Your task to perform on an android device: find snoozed emails in the gmail app Image 0: 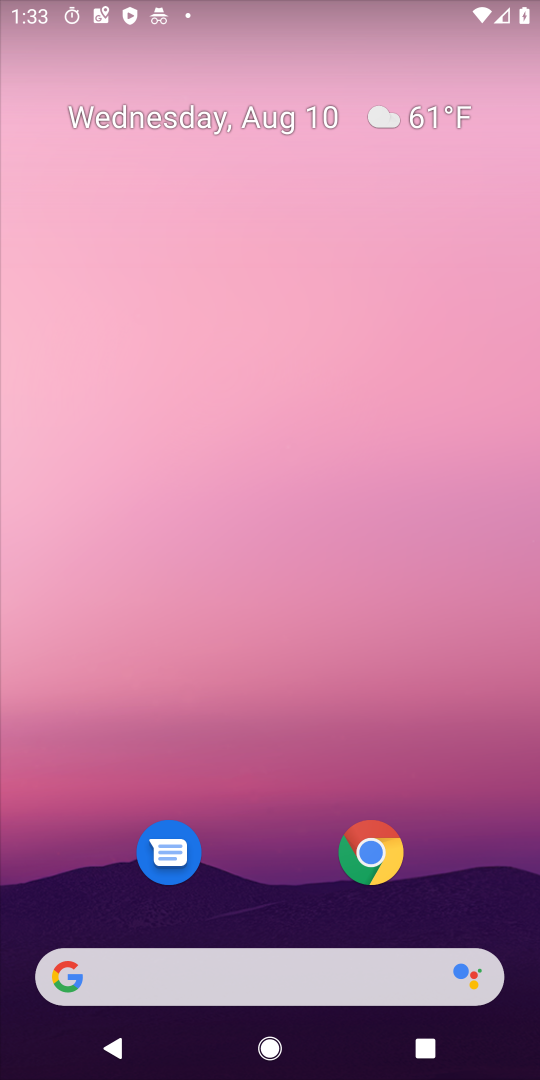
Step 0: press home button
Your task to perform on an android device: find snoozed emails in the gmail app Image 1: 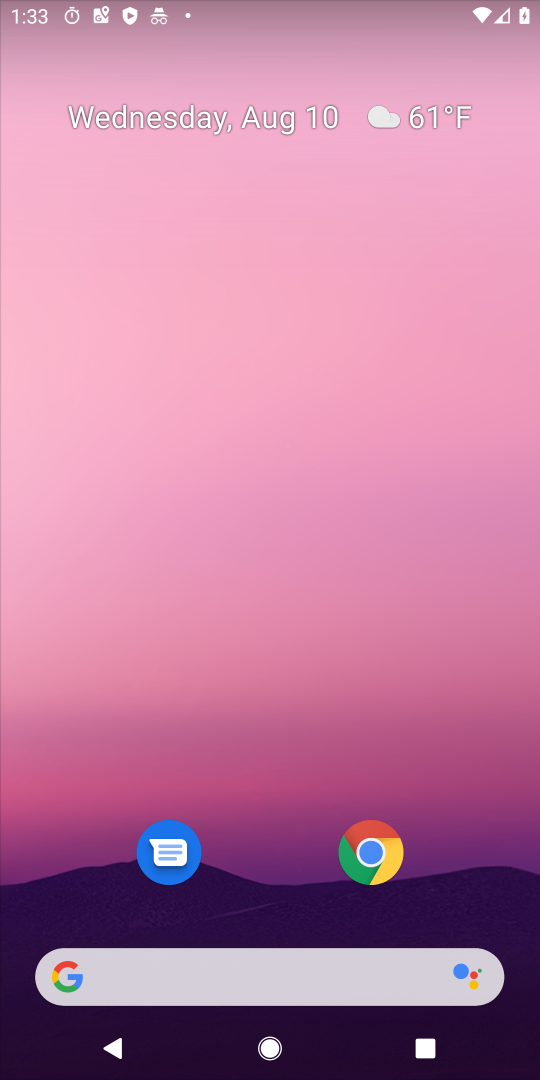
Step 1: drag from (272, 573) to (266, 51)
Your task to perform on an android device: find snoozed emails in the gmail app Image 2: 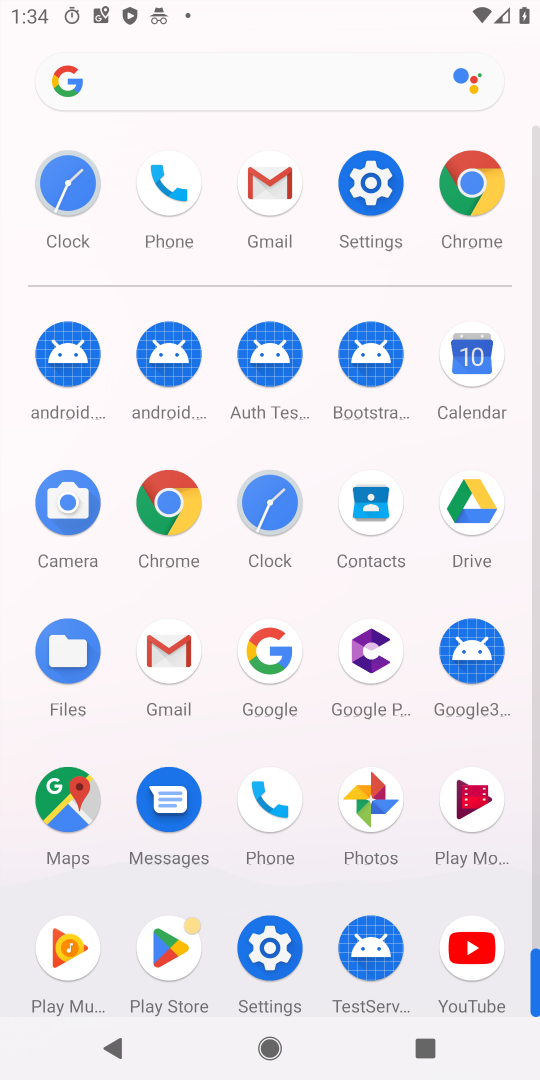
Step 2: click (185, 643)
Your task to perform on an android device: find snoozed emails in the gmail app Image 3: 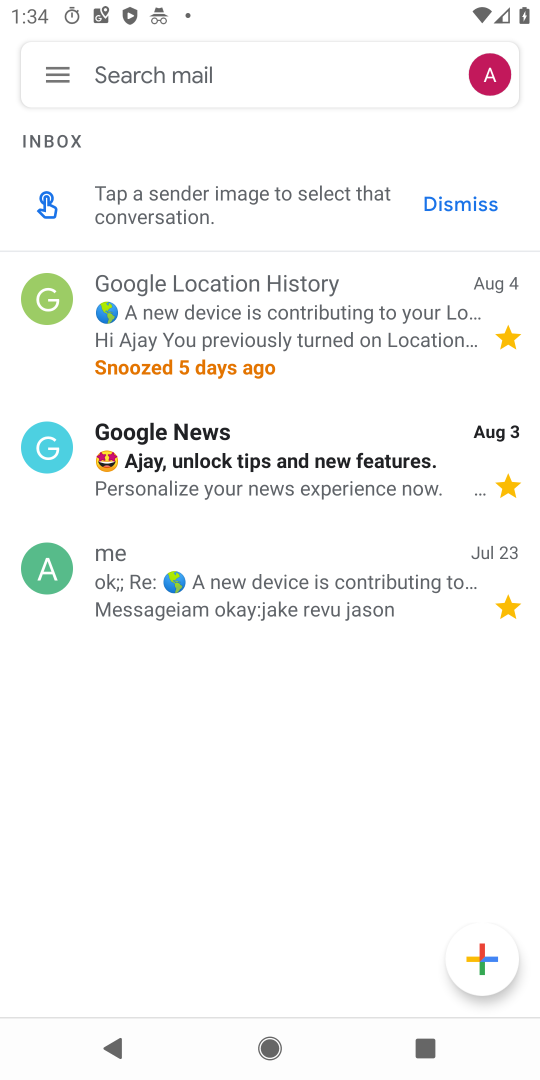
Step 3: click (58, 77)
Your task to perform on an android device: find snoozed emails in the gmail app Image 4: 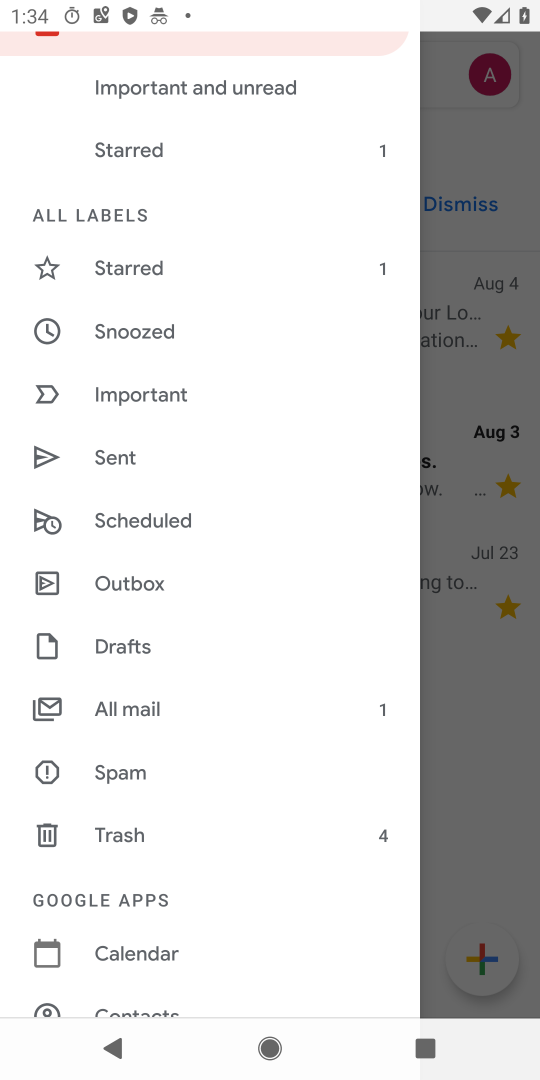
Step 4: click (120, 336)
Your task to perform on an android device: find snoozed emails in the gmail app Image 5: 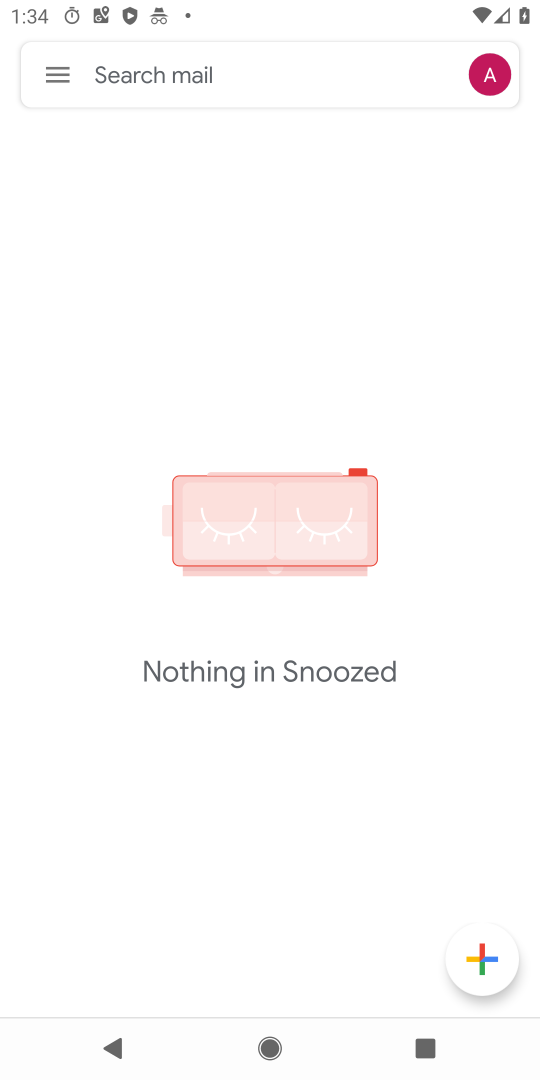
Step 5: task complete